Your task to perform on an android device: Go to Maps Image 0: 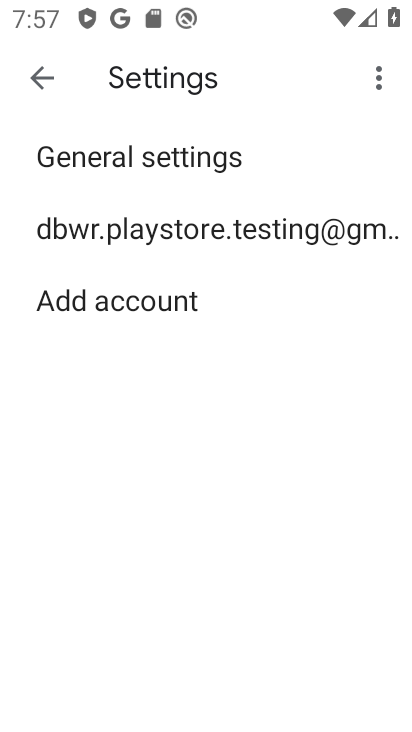
Step 0: press home button
Your task to perform on an android device: Go to Maps Image 1: 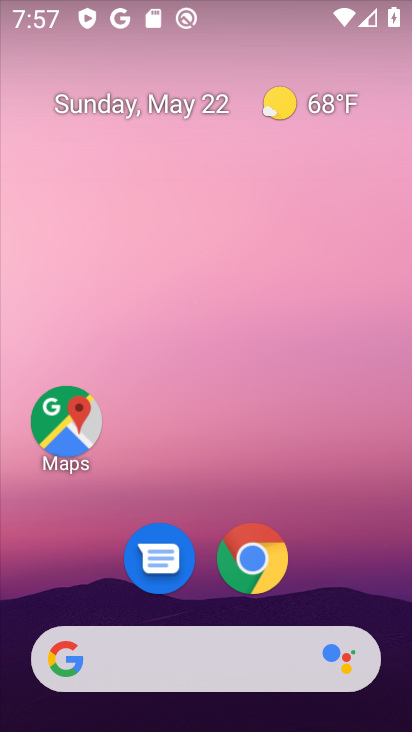
Step 1: click (263, 539)
Your task to perform on an android device: Go to Maps Image 2: 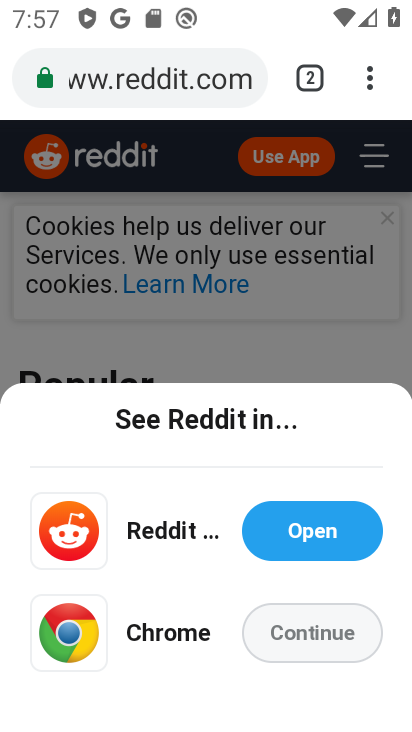
Step 2: press home button
Your task to perform on an android device: Go to Maps Image 3: 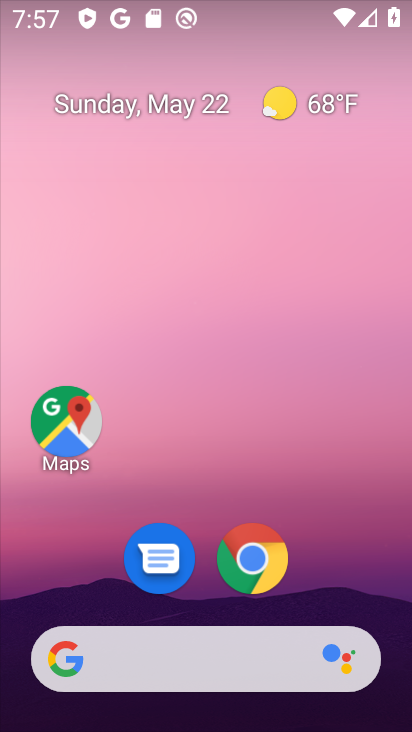
Step 3: click (83, 417)
Your task to perform on an android device: Go to Maps Image 4: 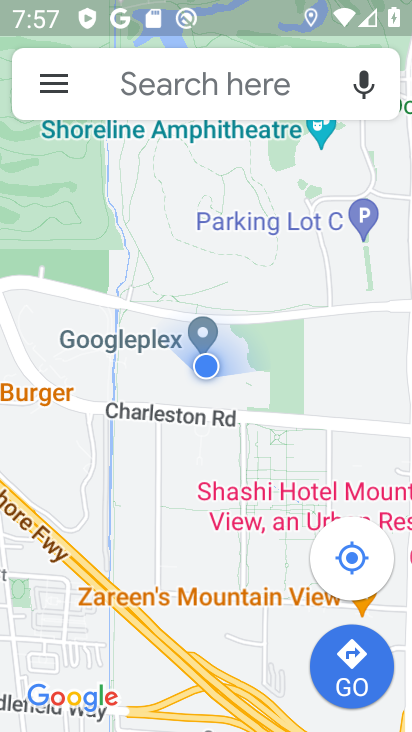
Step 4: task complete